Your task to perform on an android device: stop showing notifications on the lock screen Image 0: 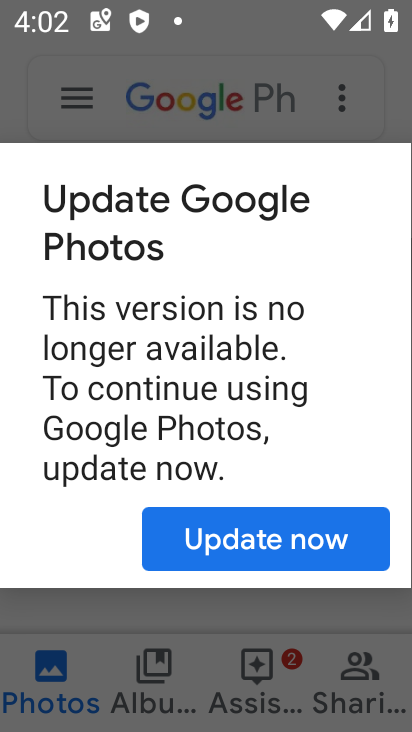
Step 0: press home button
Your task to perform on an android device: stop showing notifications on the lock screen Image 1: 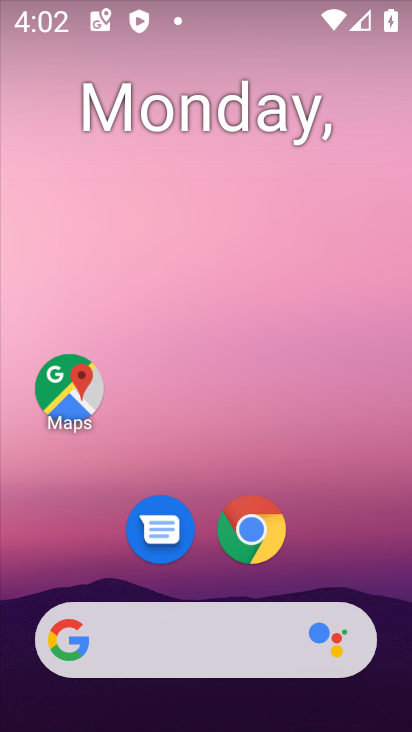
Step 1: drag from (211, 721) to (222, 216)
Your task to perform on an android device: stop showing notifications on the lock screen Image 2: 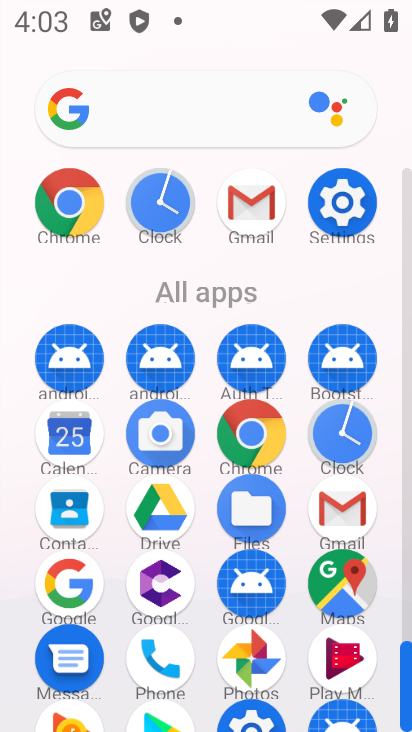
Step 2: click (348, 201)
Your task to perform on an android device: stop showing notifications on the lock screen Image 3: 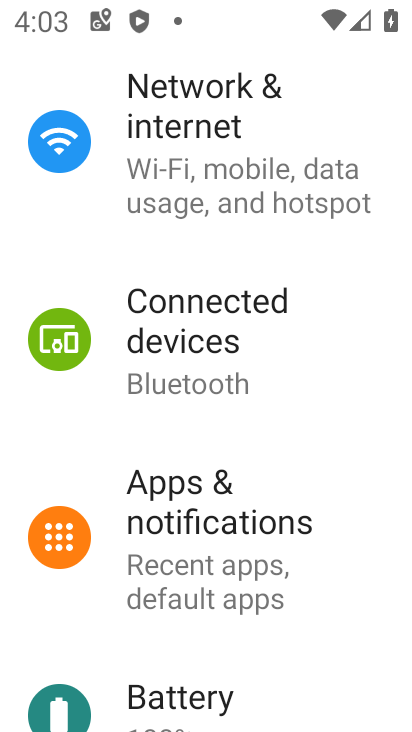
Step 3: click (197, 573)
Your task to perform on an android device: stop showing notifications on the lock screen Image 4: 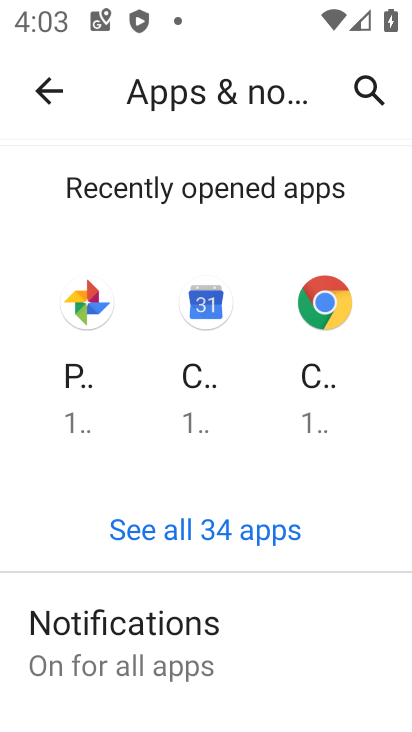
Step 4: click (154, 645)
Your task to perform on an android device: stop showing notifications on the lock screen Image 5: 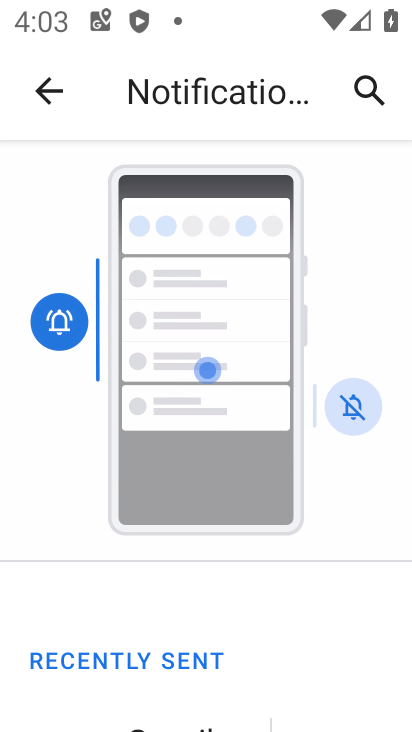
Step 5: drag from (265, 699) to (262, 271)
Your task to perform on an android device: stop showing notifications on the lock screen Image 6: 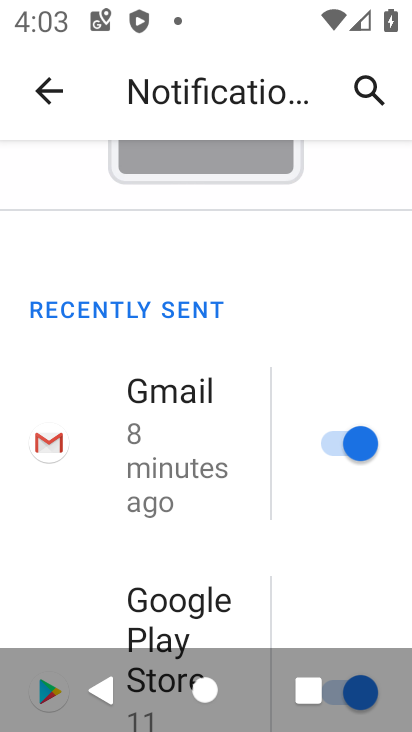
Step 6: drag from (218, 598) to (234, 274)
Your task to perform on an android device: stop showing notifications on the lock screen Image 7: 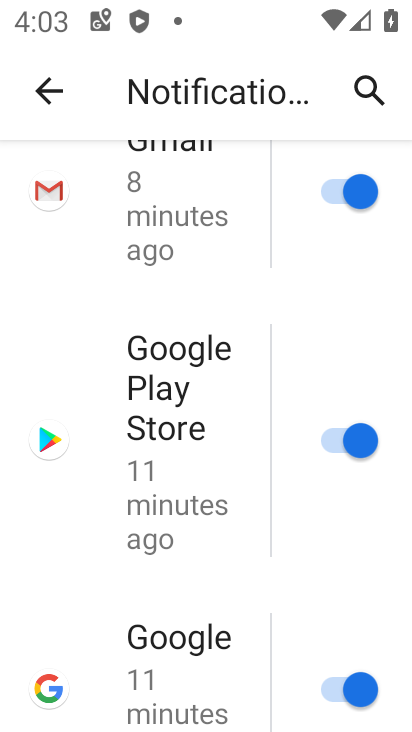
Step 7: drag from (215, 514) to (217, 187)
Your task to perform on an android device: stop showing notifications on the lock screen Image 8: 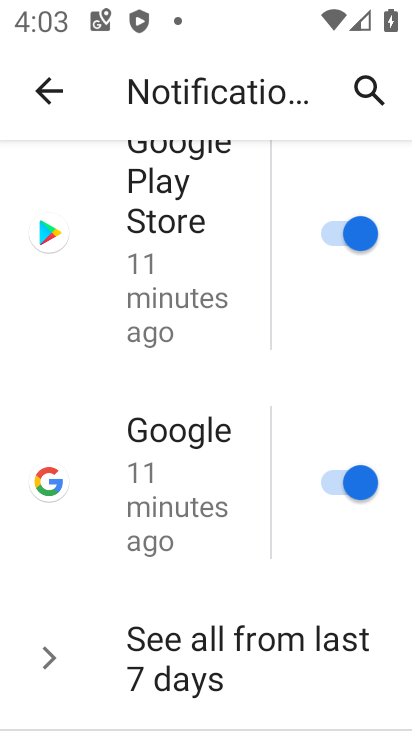
Step 8: drag from (256, 697) to (265, 231)
Your task to perform on an android device: stop showing notifications on the lock screen Image 9: 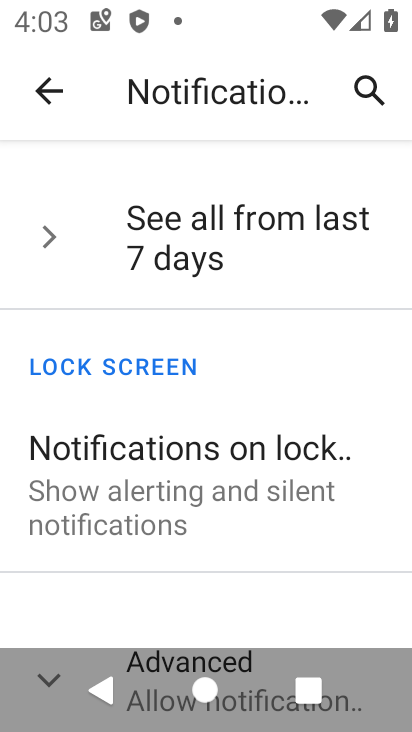
Step 9: click (201, 480)
Your task to perform on an android device: stop showing notifications on the lock screen Image 10: 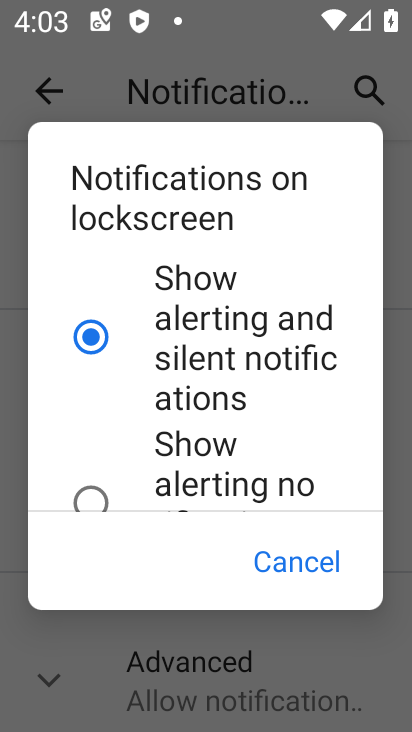
Step 10: drag from (162, 500) to (232, 114)
Your task to perform on an android device: stop showing notifications on the lock screen Image 11: 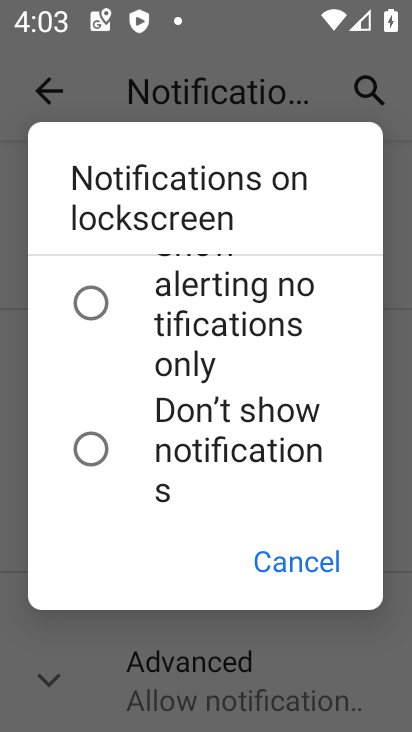
Step 11: click (93, 449)
Your task to perform on an android device: stop showing notifications on the lock screen Image 12: 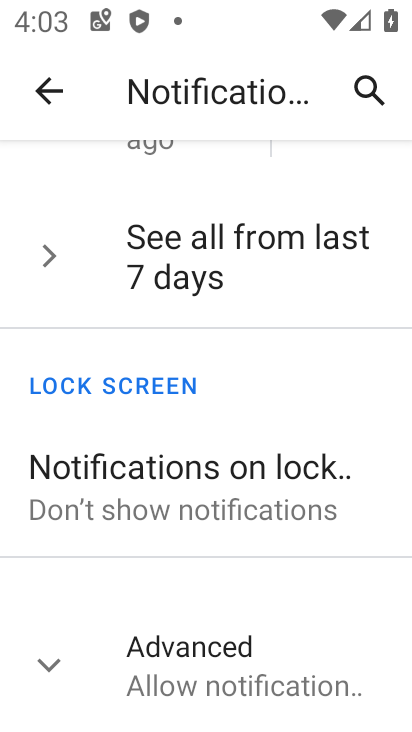
Step 12: task complete